Your task to perform on an android device: Show me popular videos on Youtube Image 0: 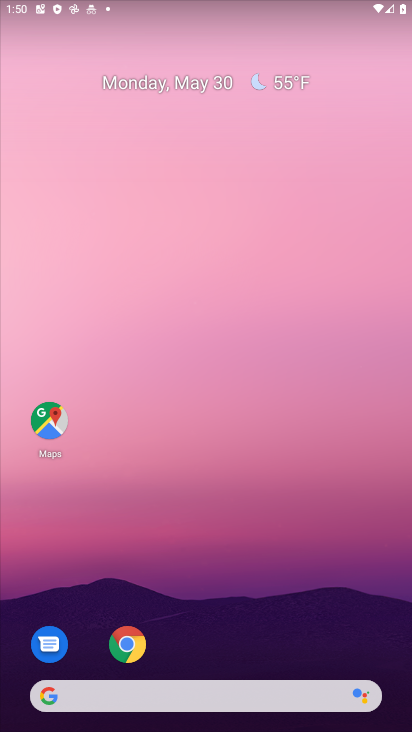
Step 0: drag from (270, 627) to (129, 39)
Your task to perform on an android device: Show me popular videos on Youtube Image 1: 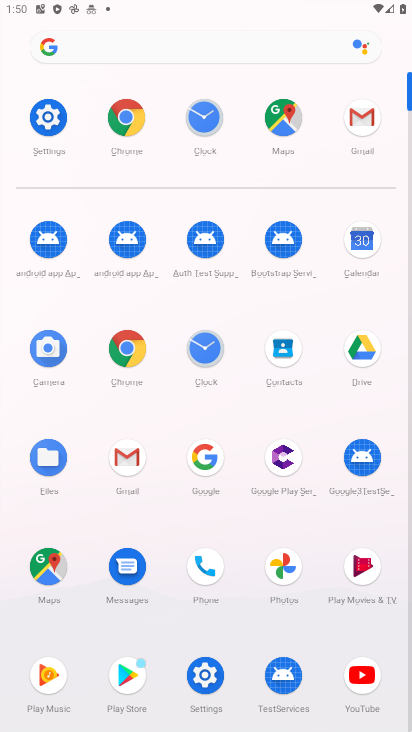
Step 1: click (382, 702)
Your task to perform on an android device: Show me popular videos on Youtube Image 2: 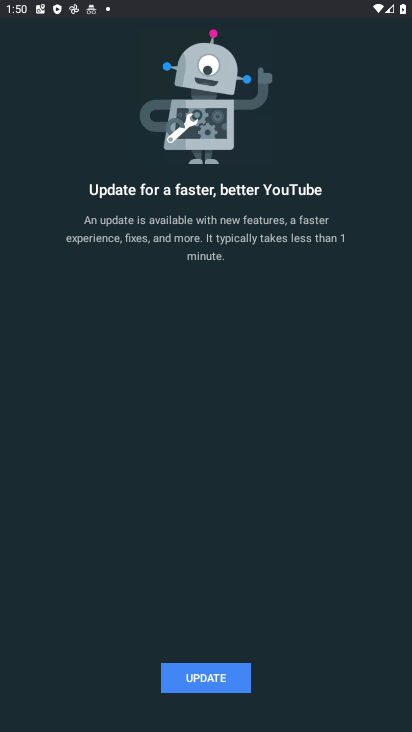
Step 2: click (220, 670)
Your task to perform on an android device: Show me popular videos on Youtube Image 3: 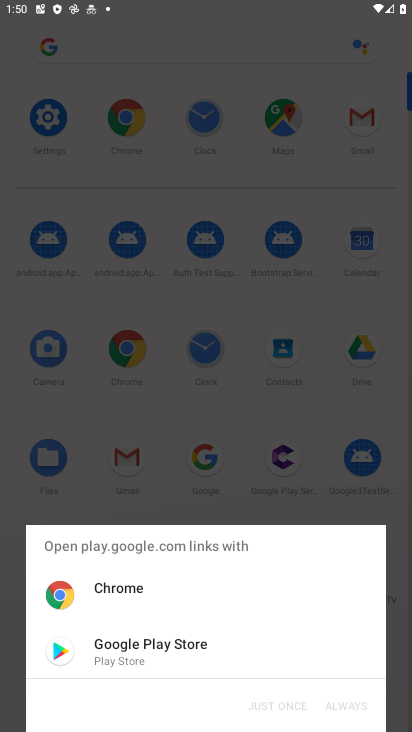
Step 3: click (138, 638)
Your task to perform on an android device: Show me popular videos on Youtube Image 4: 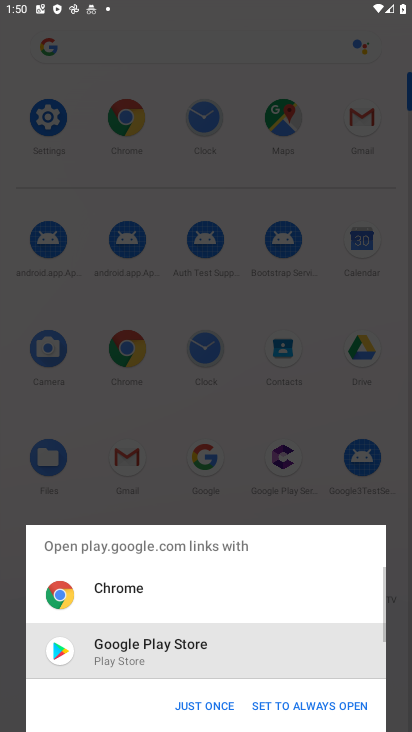
Step 4: click (192, 699)
Your task to perform on an android device: Show me popular videos on Youtube Image 5: 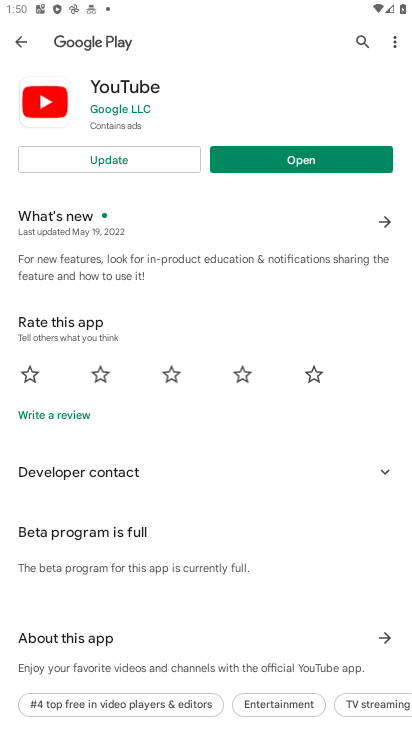
Step 5: click (110, 166)
Your task to perform on an android device: Show me popular videos on Youtube Image 6: 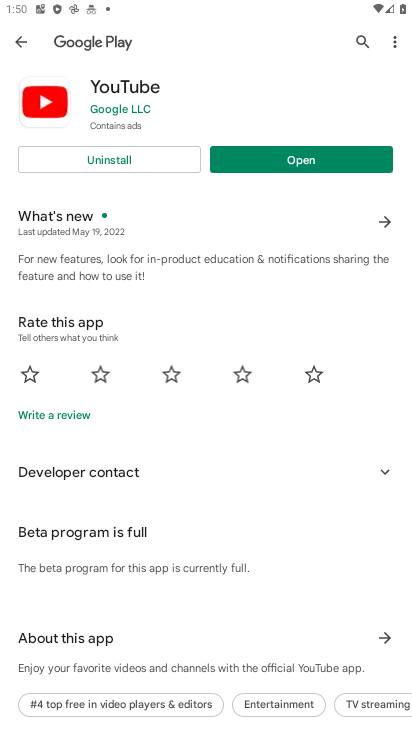
Step 6: click (302, 145)
Your task to perform on an android device: Show me popular videos on Youtube Image 7: 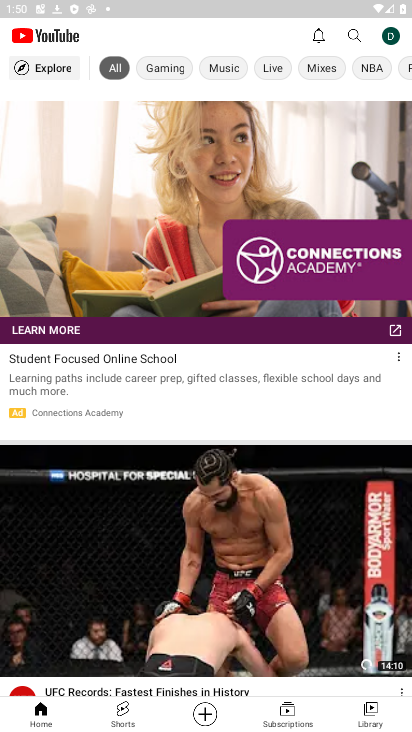
Step 7: task complete